Your task to perform on an android device: install app "Pandora - Music & Podcasts" Image 0: 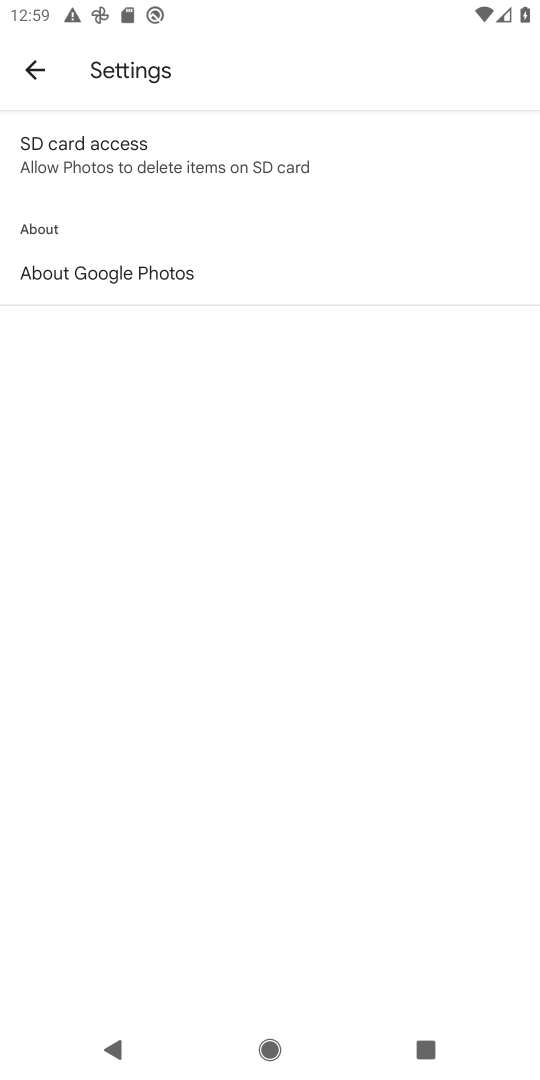
Step 0: press home button
Your task to perform on an android device: install app "Pandora - Music & Podcasts" Image 1: 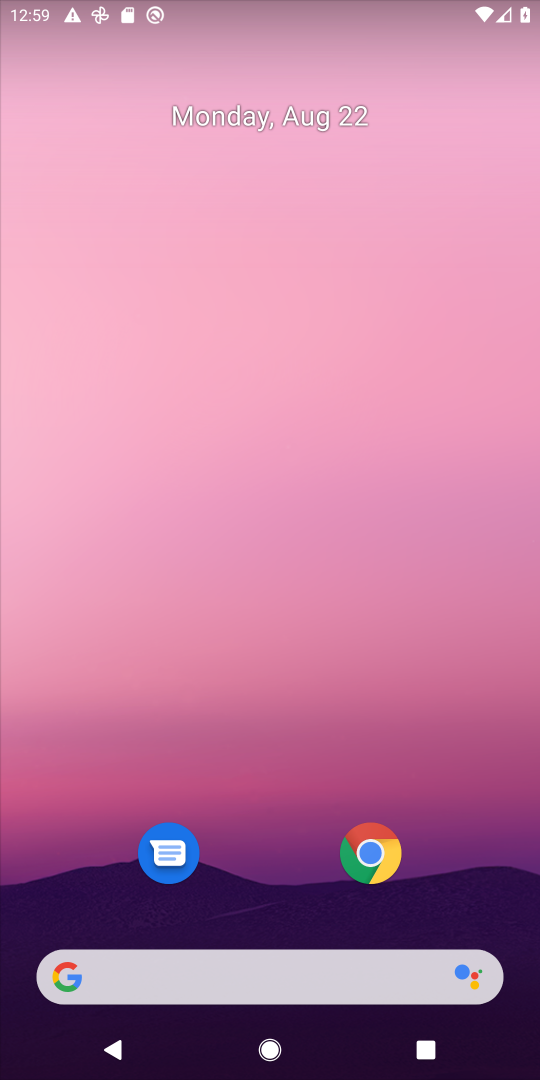
Step 1: drag from (328, 843) to (307, 722)
Your task to perform on an android device: install app "Pandora - Music & Podcasts" Image 2: 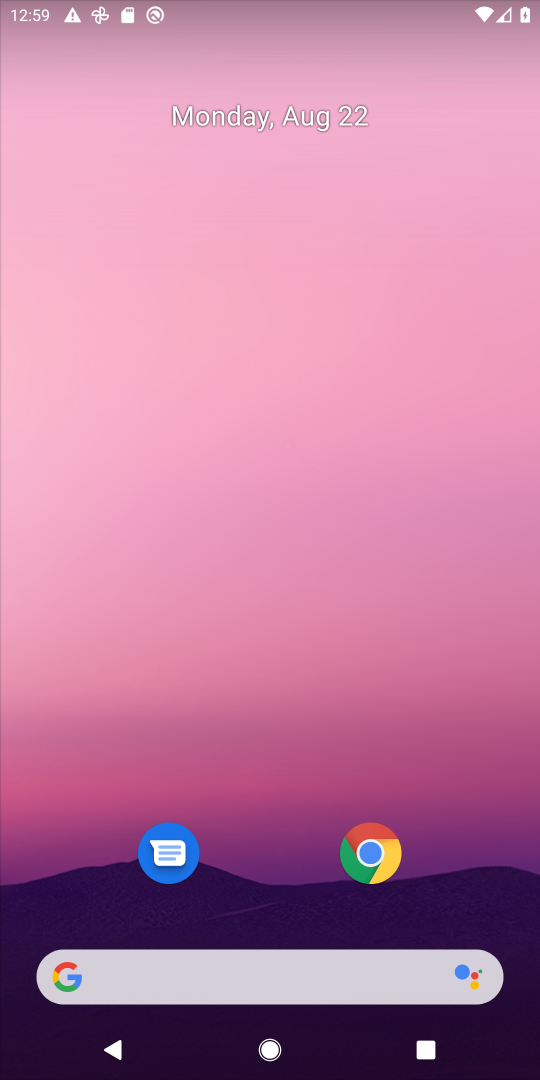
Step 2: drag from (325, 927) to (308, 502)
Your task to perform on an android device: install app "Pandora - Music & Podcasts" Image 3: 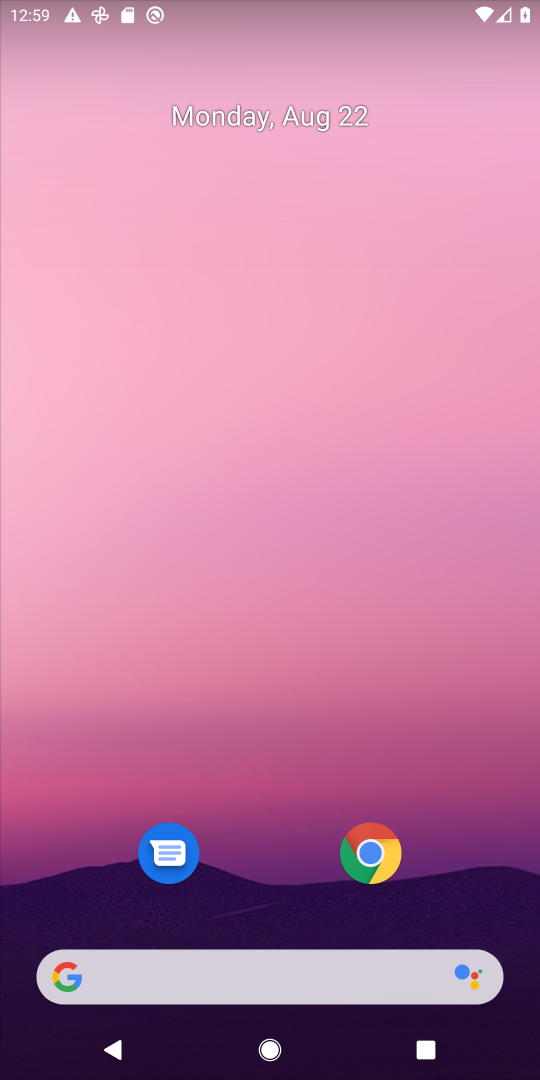
Step 3: drag from (223, 883) to (364, 69)
Your task to perform on an android device: install app "Pandora - Music & Podcasts" Image 4: 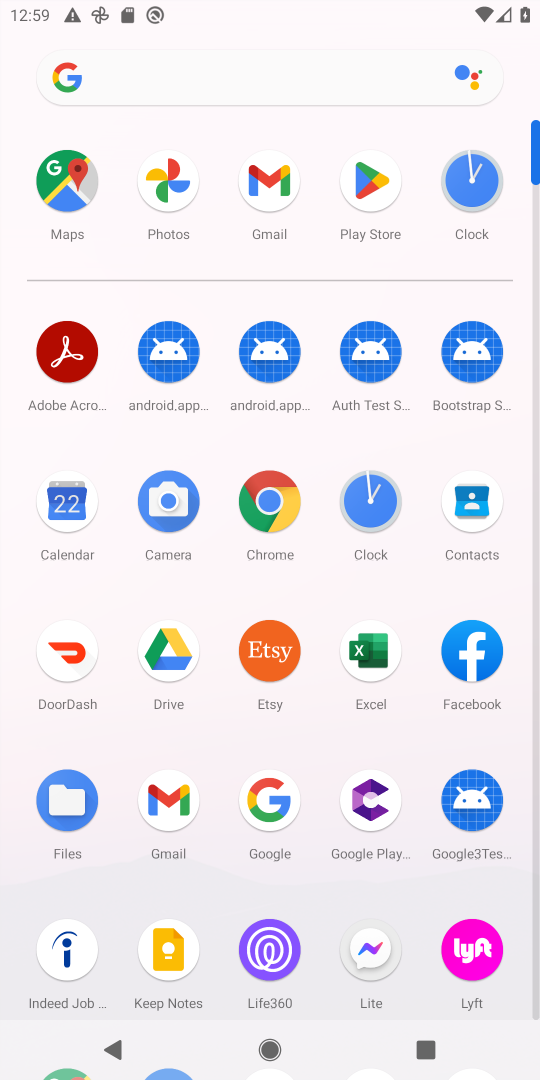
Step 4: click (374, 173)
Your task to perform on an android device: install app "Pandora - Music & Podcasts" Image 5: 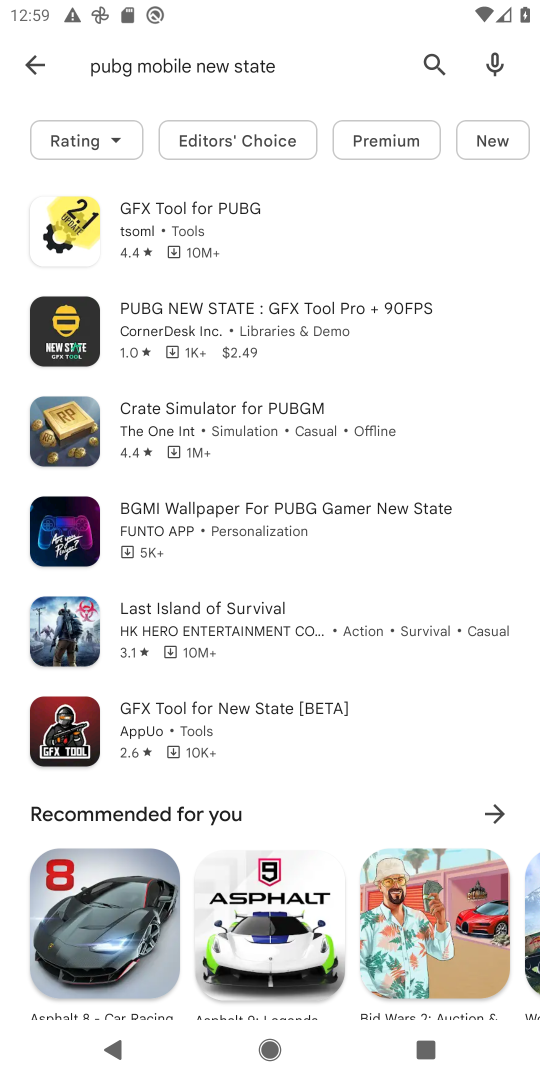
Step 5: click (30, 60)
Your task to perform on an android device: install app "Pandora - Music & Podcasts" Image 6: 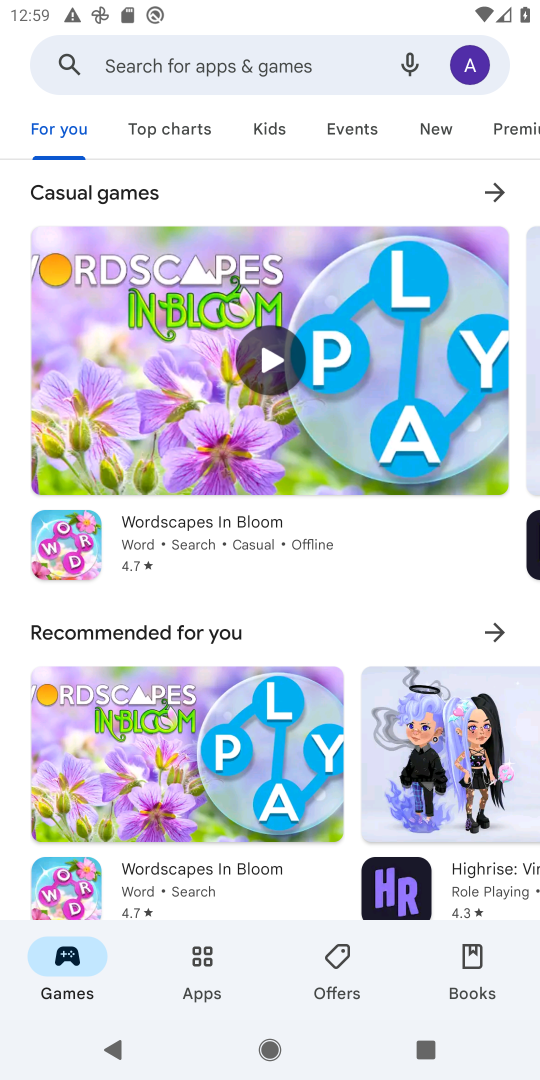
Step 6: click (258, 49)
Your task to perform on an android device: install app "Pandora - Music & Podcasts" Image 7: 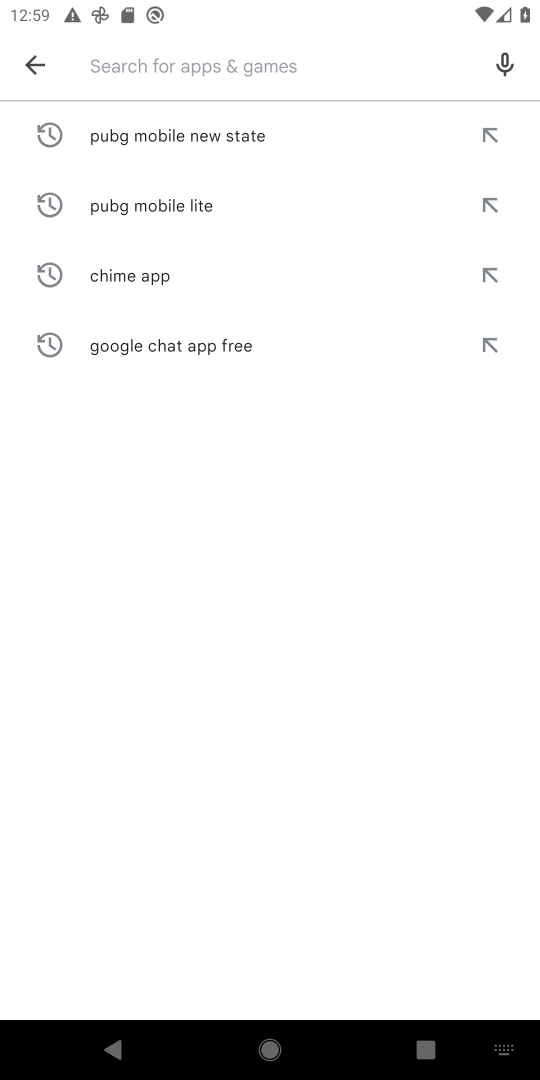
Step 7: type "Pandora - Music & Podcasts "
Your task to perform on an android device: install app "Pandora - Music & Podcasts" Image 8: 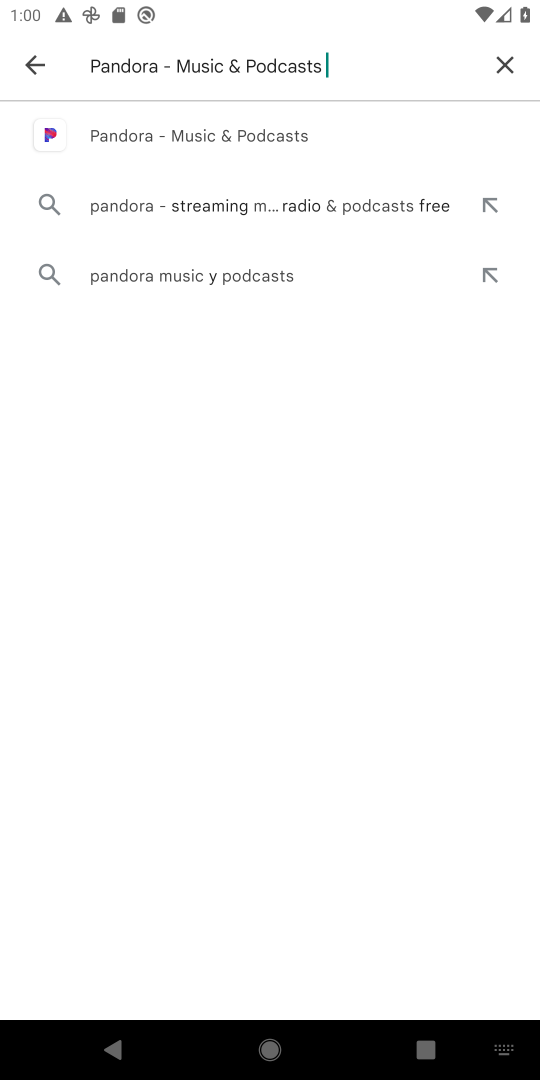
Step 8: click (279, 140)
Your task to perform on an android device: install app "Pandora - Music & Podcasts" Image 9: 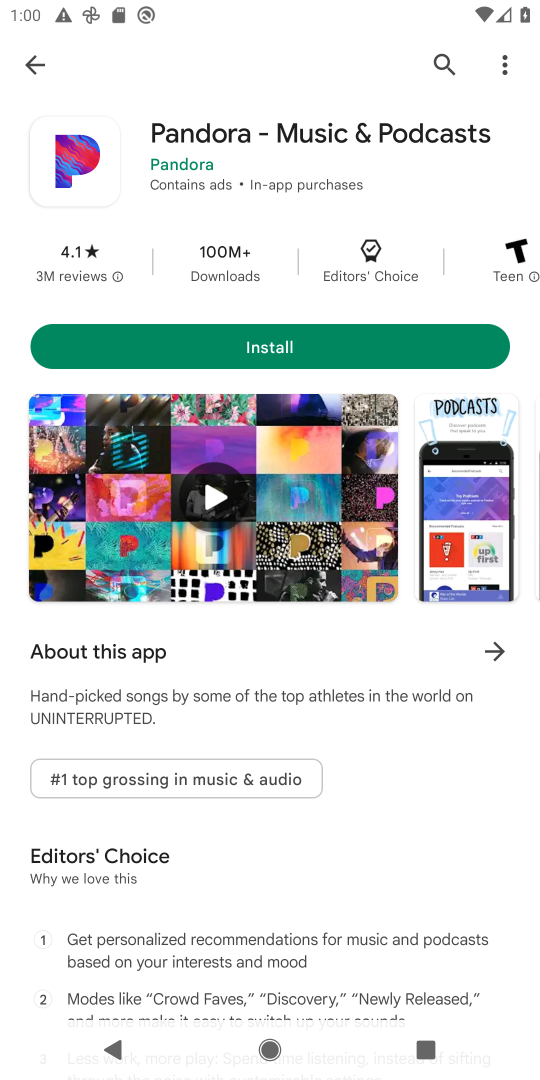
Step 9: click (304, 329)
Your task to perform on an android device: install app "Pandora - Music & Podcasts" Image 10: 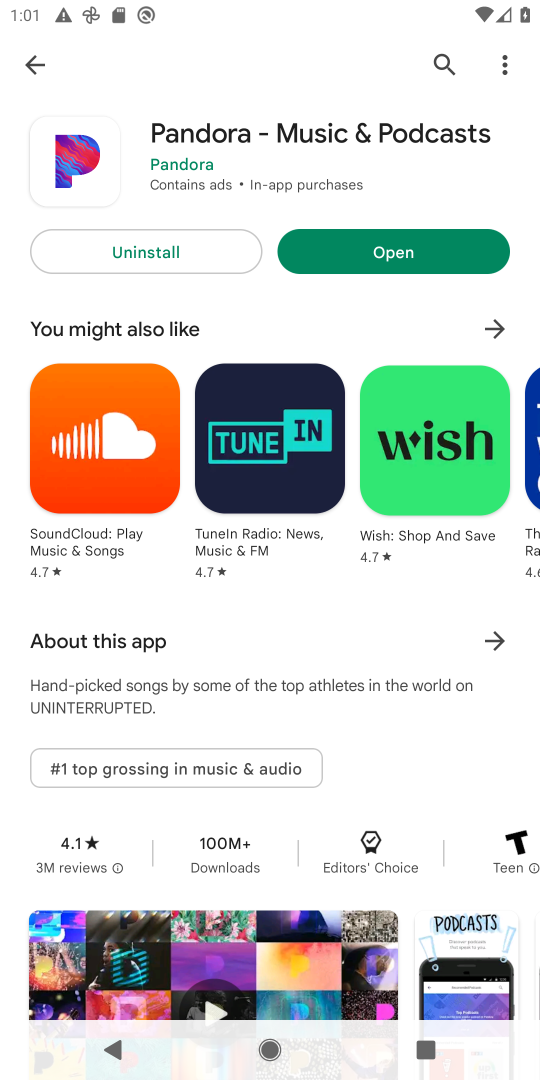
Step 10: click (441, 255)
Your task to perform on an android device: install app "Pandora - Music & Podcasts" Image 11: 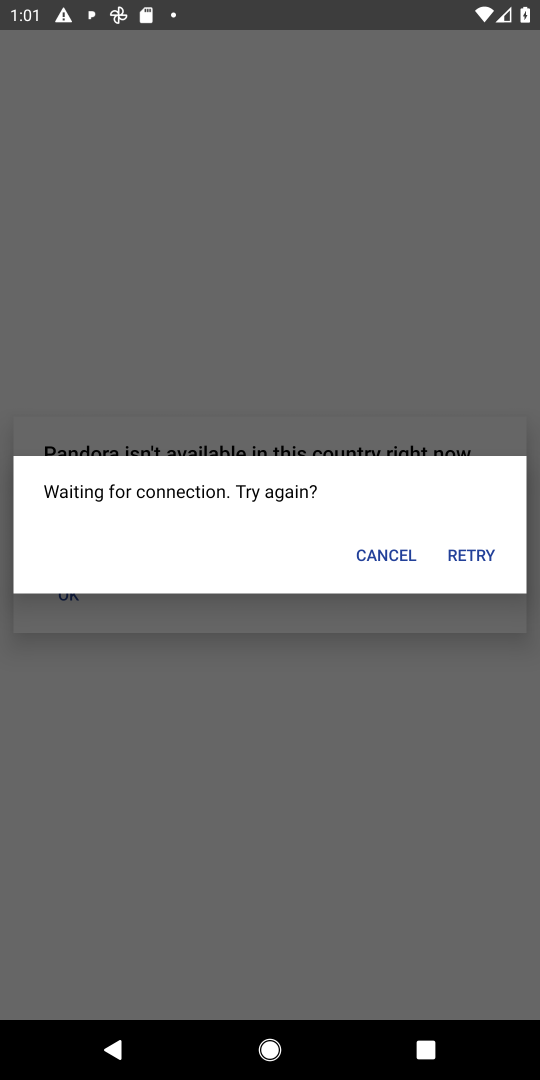
Step 11: task complete